Your task to perform on an android device: Add duracell triple a to the cart on bestbuy.com, then select checkout. Image 0: 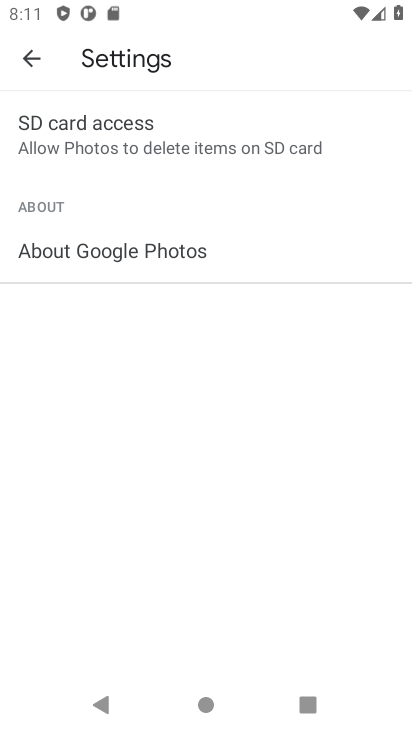
Step 0: press home button
Your task to perform on an android device: Add duracell triple a to the cart on bestbuy.com, then select checkout. Image 1: 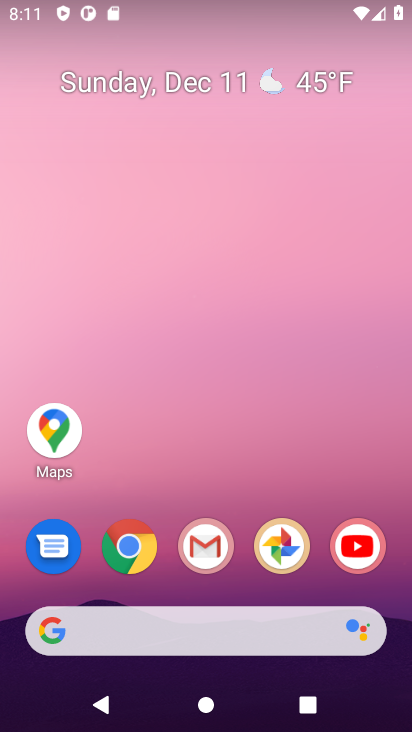
Step 1: click (134, 548)
Your task to perform on an android device: Add duracell triple a to the cart on bestbuy.com, then select checkout. Image 2: 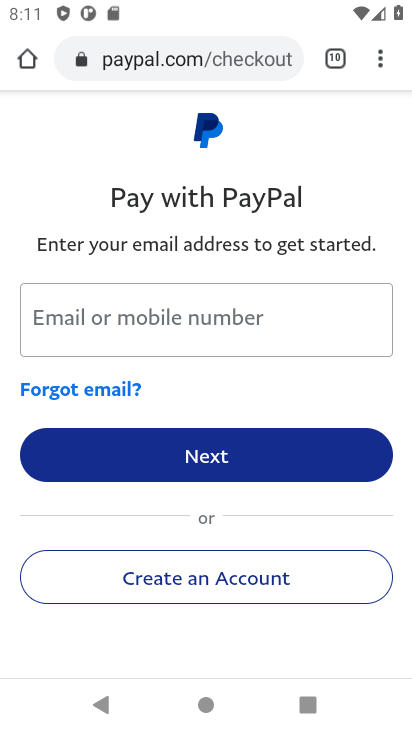
Step 2: click (199, 59)
Your task to perform on an android device: Add duracell triple a to the cart on bestbuy.com, then select checkout. Image 3: 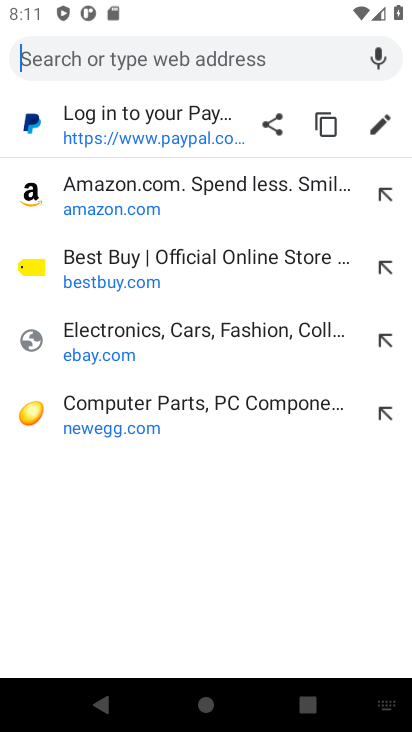
Step 3: click (102, 260)
Your task to perform on an android device: Add duracell triple a to the cart on bestbuy.com, then select checkout. Image 4: 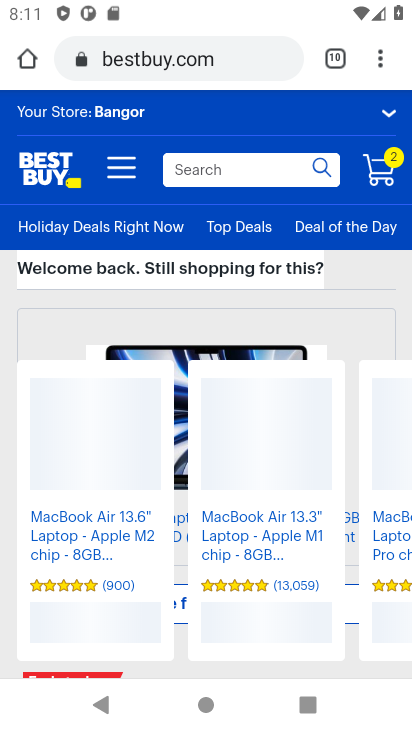
Step 4: click (187, 174)
Your task to perform on an android device: Add duracell triple a to the cart on bestbuy.com, then select checkout. Image 5: 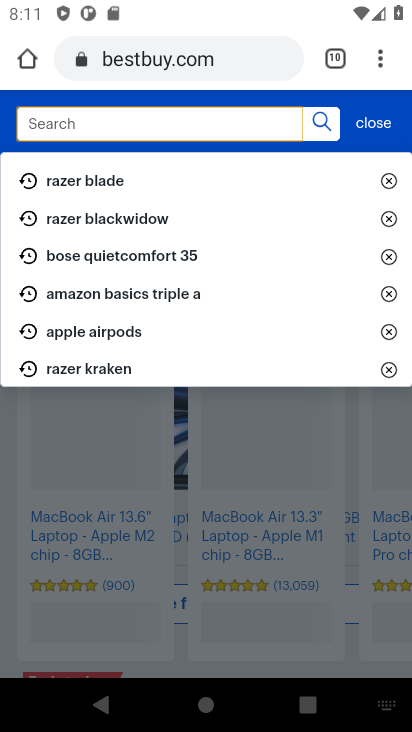
Step 5: type "duracell triple a"
Your task to perform on an android device: Add duracell triple a to the cart on bestbuy.com, then select checkout. Image 6: 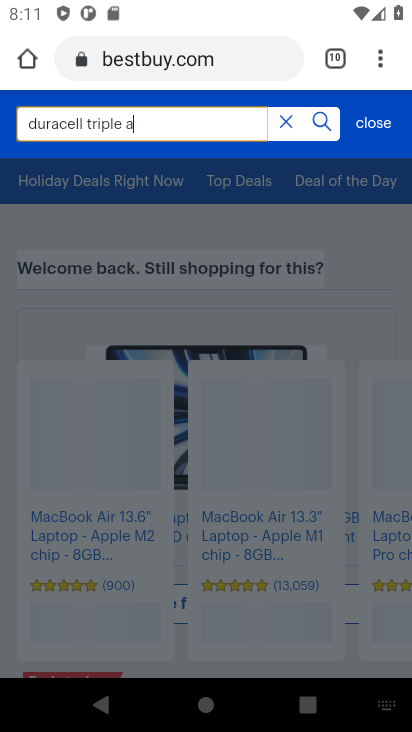
Step 6: click (319, 125)
Your task to perform on an android device: Add duracell triple a to the cart on bestbuy.com, then select checkout. Image 7: 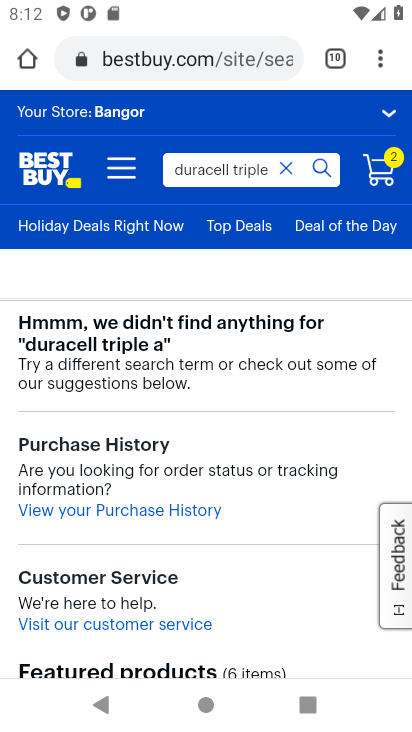
Step 7: task complete